Your task to perform on an android device: Open calendar and show me the second week of next month Image 0: 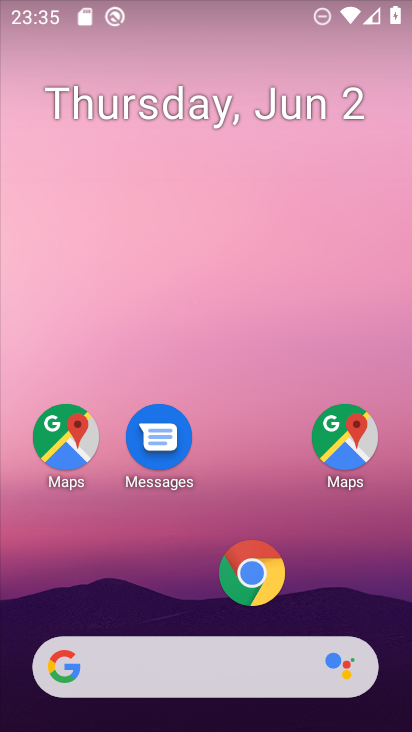
Step 0: drag from (262, 497) to (257, 122)
Your task to perform on an android device: Open calendar and show me the second week of next month Image 1: 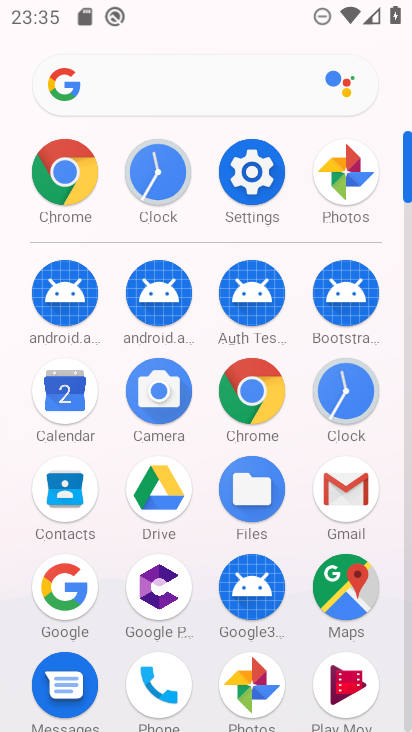
Step 1: click (70, 375)
Your task to perform on an android device: Open calendar and show me the second week of next month Image 2: 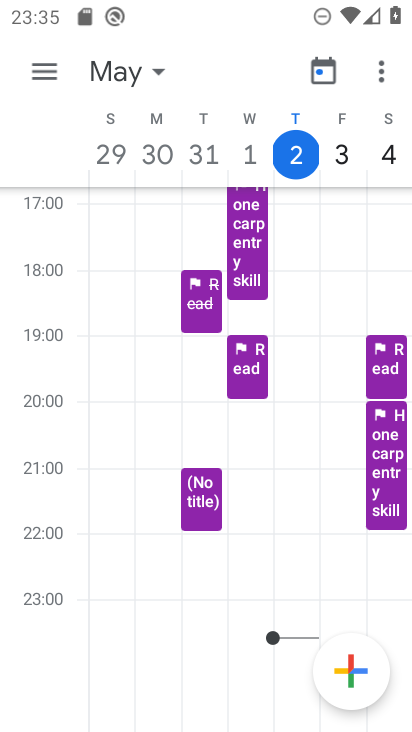
Step 2: click (31, 56)
Your task to perform on an android device: Open calendar and show me the second week of next month Image 3: 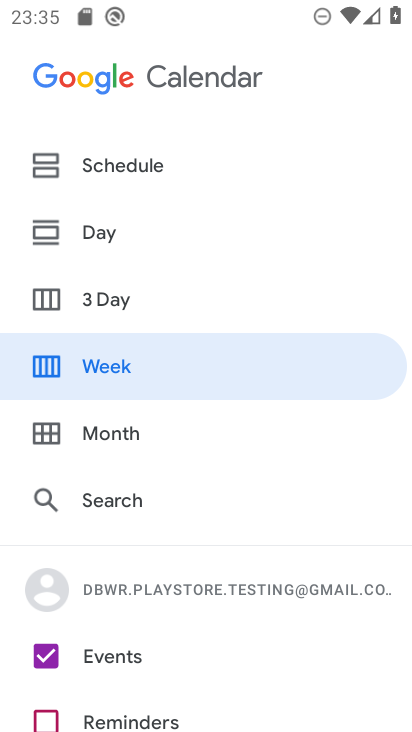
Step 3: click (104, 418)
Your task to perform on an android device: Open calendar and show me the second week of next month Image 4: 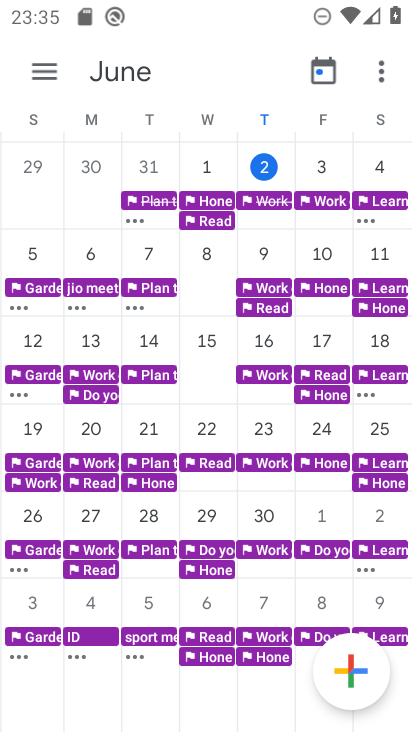
Step 4: task complete